Your task to perform on an android device: check out phone information Image 0: 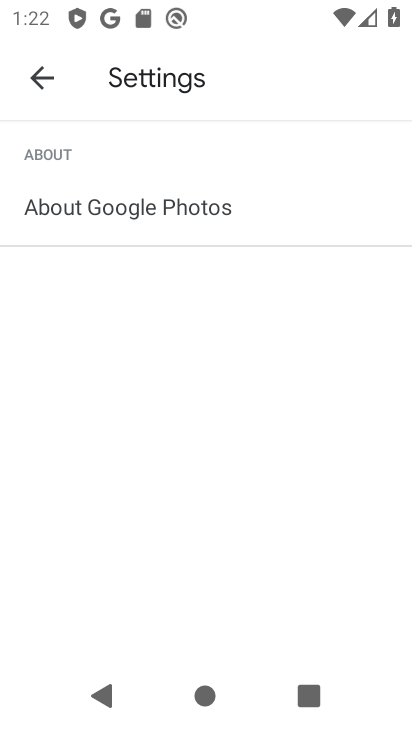
Step 0: press home button
Your task to perform on an android device: check out phone information Image 1: 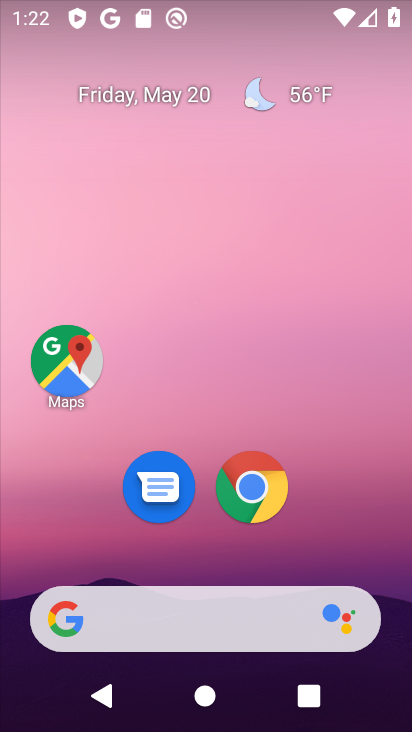
Step 1: drag from (196, 564) to (215, 32)
Your task to perform on an android device: check out phone information Image 2: 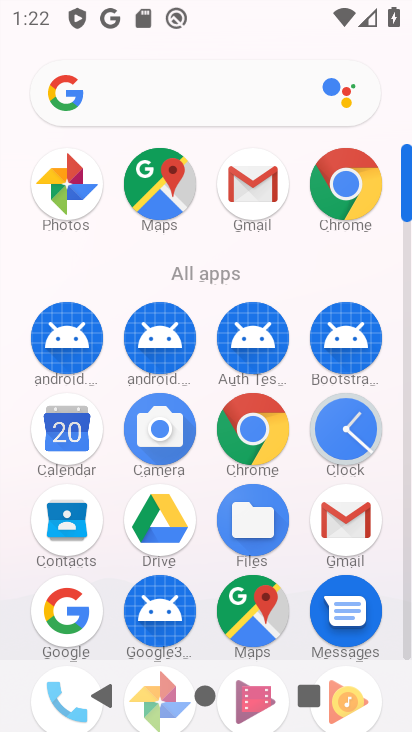
Step 2: drag from (207, 555) to (200, 87)
Your task to perform on an android device: check out phone information Image 3: 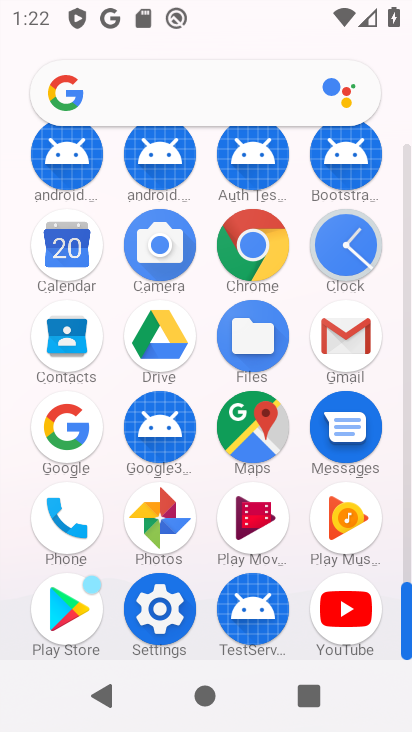
Step 3: click (159, 600)
Your task to perform on an android device: check out phone information Image 4: 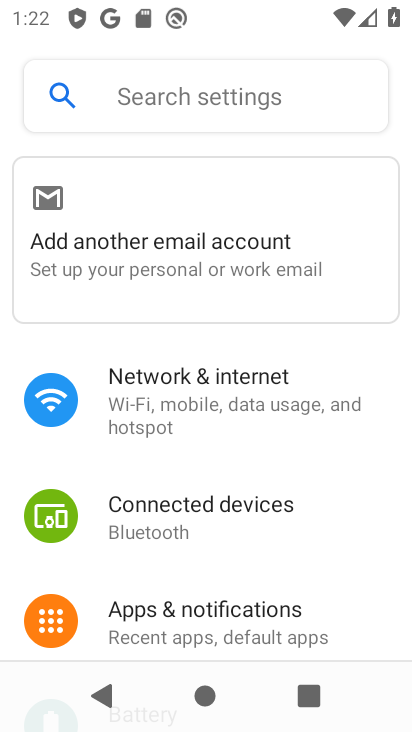
Step 4: drag from (201, 598) to (184, 58)
Your task to perform on an android device: check out phone information Image 5: 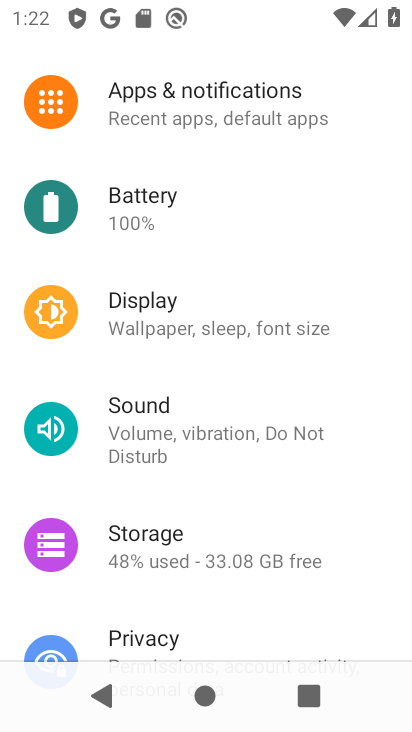
Step 5: drag from (246, 628) to (270, 86)
Your task to perform on an android device: check out phone information Image 6: 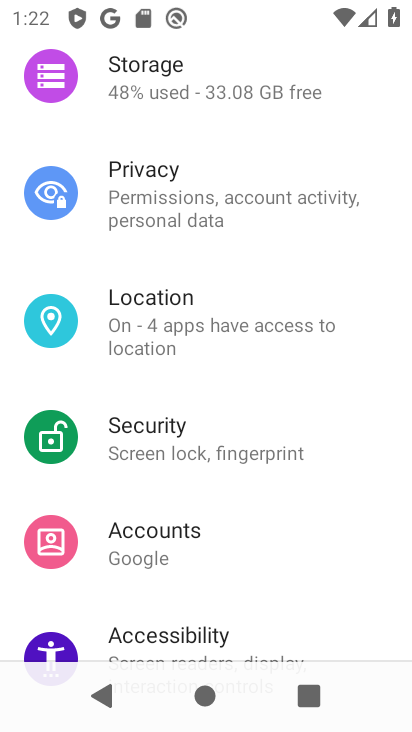
Step 6: drag from (272, 622) to (276, 79)
Your task to perform on an android device: check out phone information Image 7: 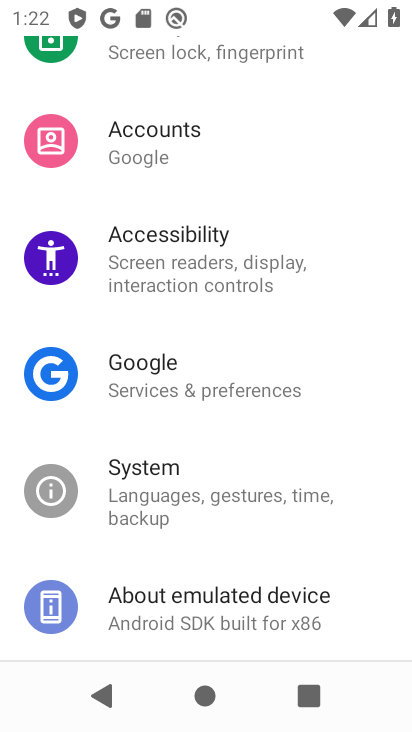
Step 7: click (327, 612)
Your task to perform on an android device: check out phone information Image 8: 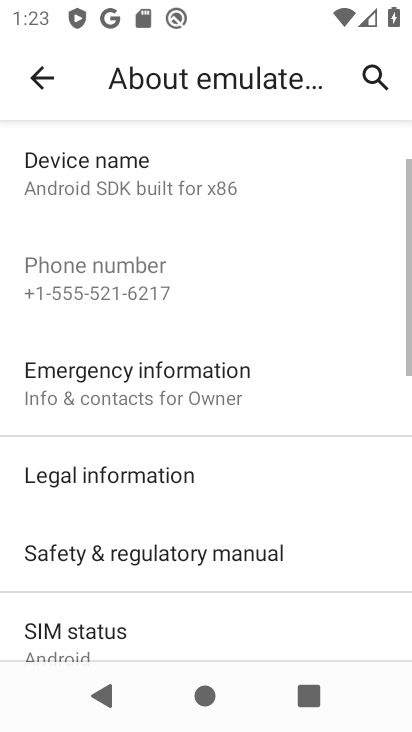
Step 8: task complete